Your task to perform on an android device: Open calendar and show me the second week of next month Image 0: 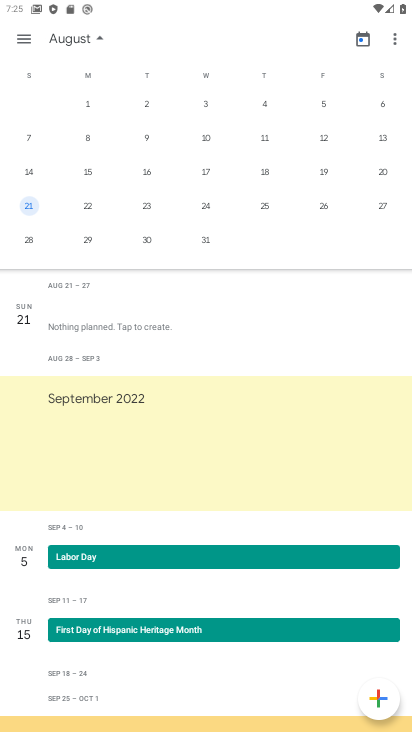
Step 0: press home button
Your task to perform on an android device: Open calendar and show me the second week of next month Image 1: 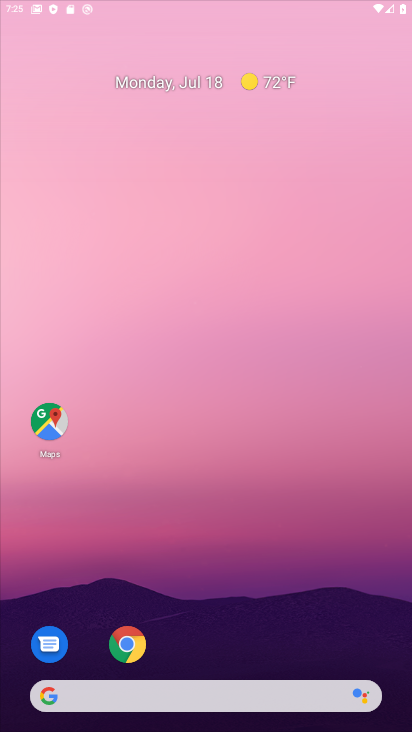
Step 1: drag from (387, 654) to (181, 66)
Your task to perform on an android device: Open calendar and show me the second week of next month Image 2: 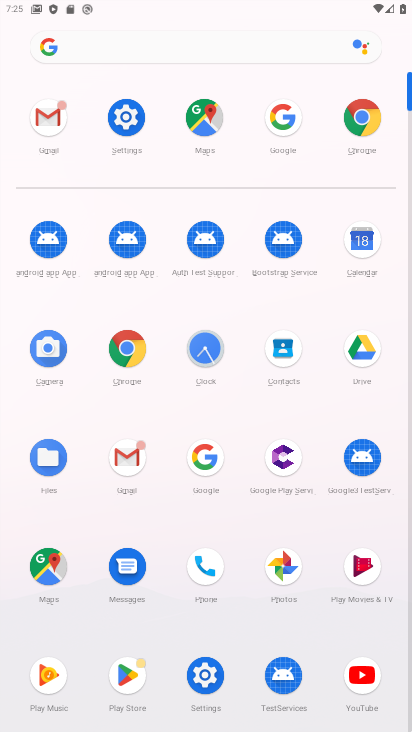
Step 2: click (368, 249)
Your task to perform on an android device: Open calendar and show me the second week of next month Image 3: 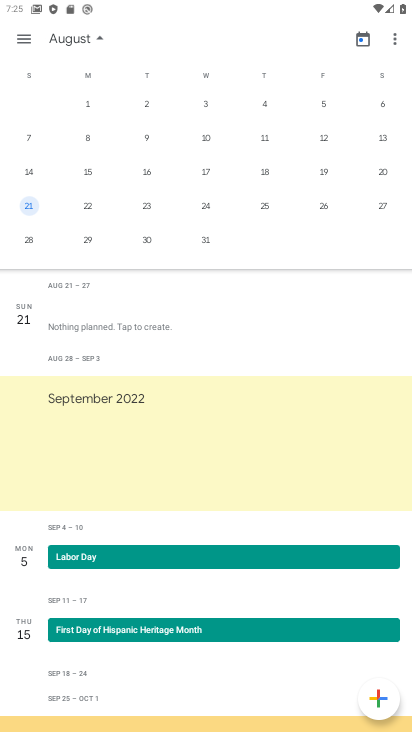
Step 3: drag from (362, 177) to (2, 121)
Your task to perform on an android device: Open calendar and show me the second week of next month Image 4: 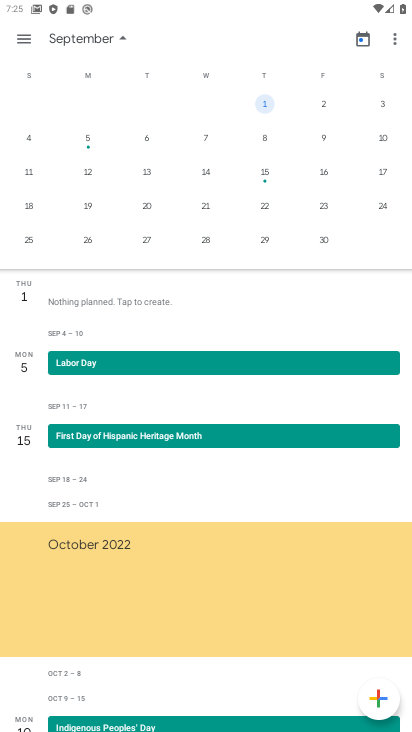
Step 4: click (30, 166)
Your task to perform on an android device: Open calendar and show me the second week of next month Image 5: 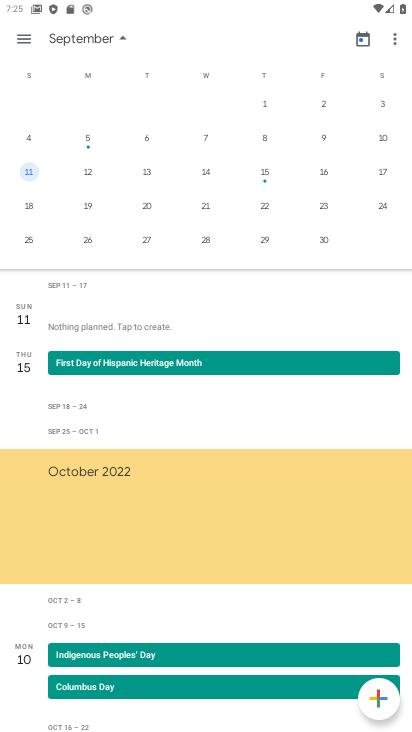
Step 5: task complete